Your task to perform on an android device: Open the stopwatch Image 0: 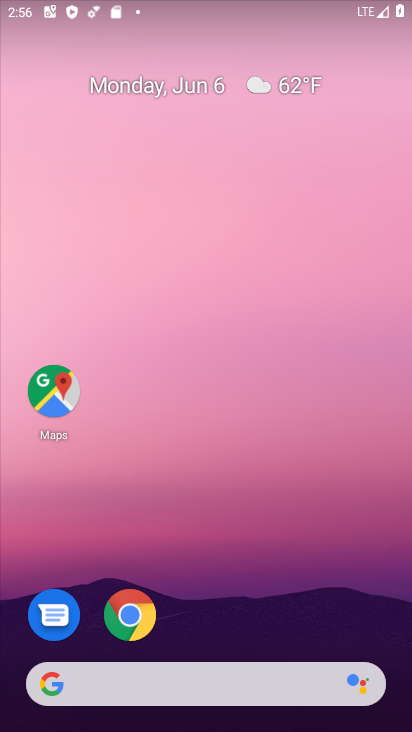
Step 0: drag from (237, 668) to (278, 3)
Your task to perform on an android device: Open the stopwatch Image 1: 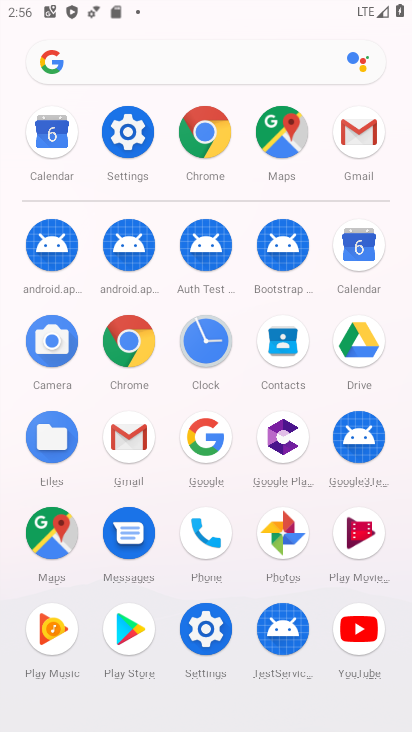
Step 1: click (217, 340)
Your task to perform on an android device: Open the stopwatch Image 2: 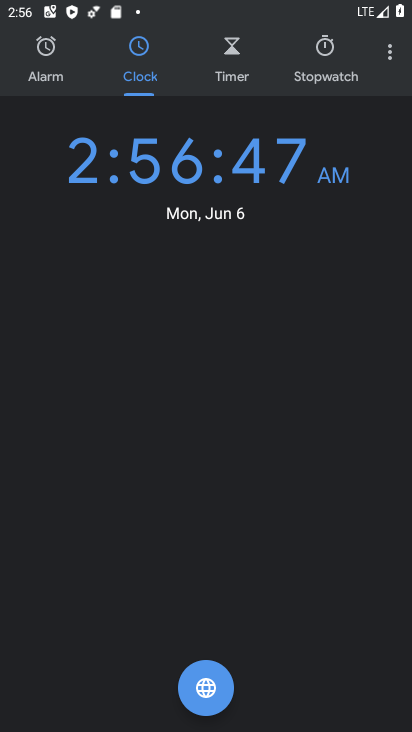
Step 2: click (319, 52)
Your task to perform on an android device: Open the stopwatch Image 3: 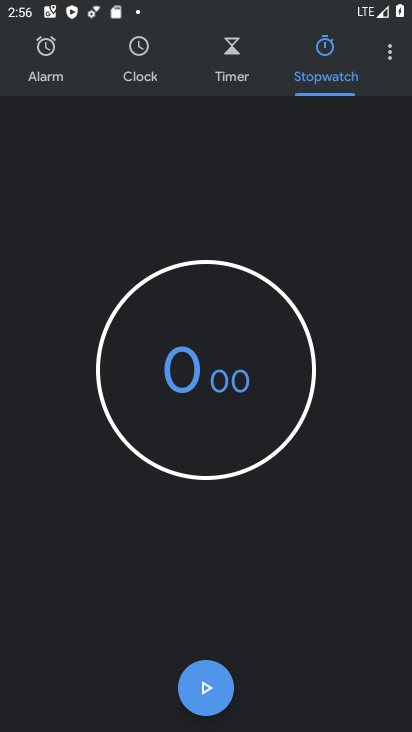
Step 3: click (208, 684)
Your task to perform on an android device: Open the stopwatch Image 4: 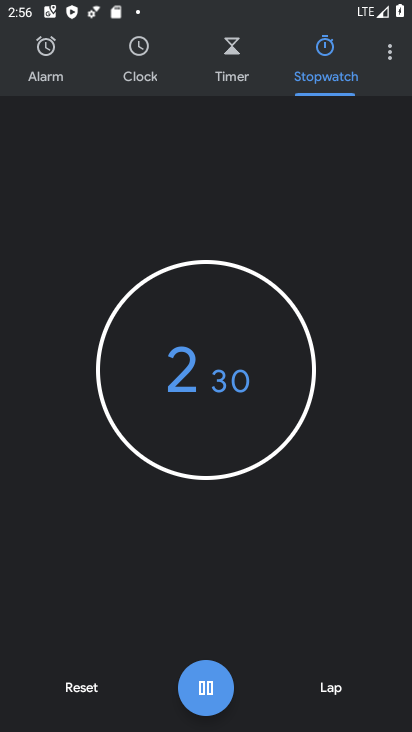
Step 4: task complete